Your task to perform on an android device: Go to accessibility settings Image 0: 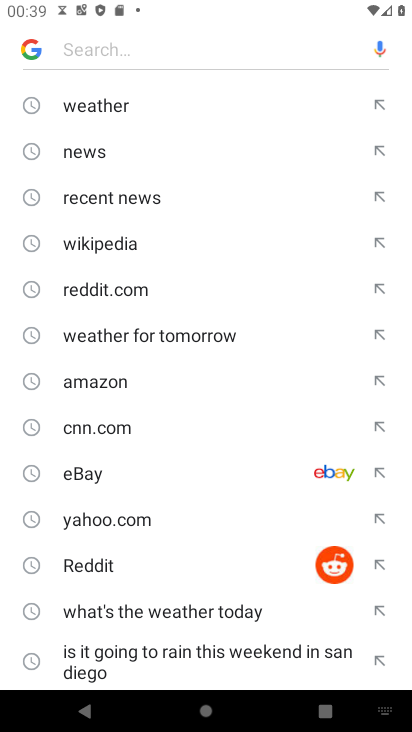
Step 0: press back button
Your task to perform on an android device: Go to accessibility settings Image 1: 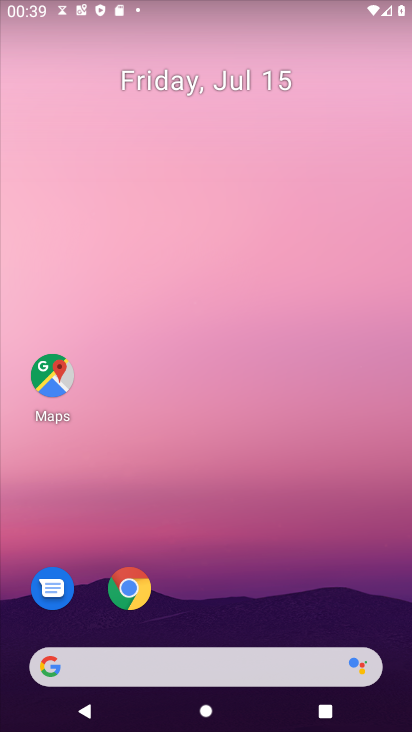
Step 1: drag from (243, 592) to (277, 129)
Your task to perform on an android device: Go to accessibility settings Image 2: 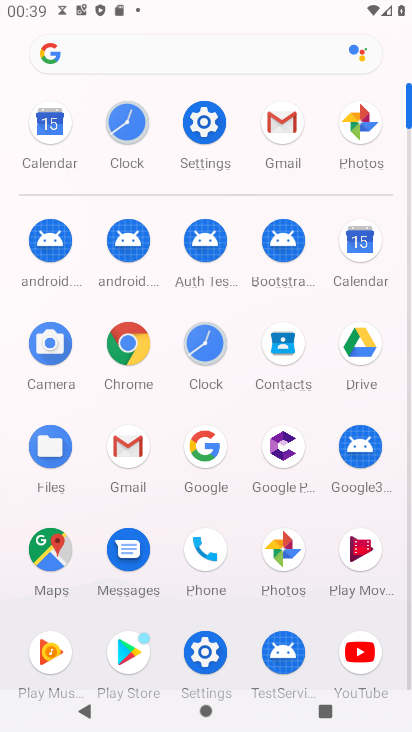
Step 2: click (204, 113)
Your task to perform on an android device: Go to accessibility settings Image 3: 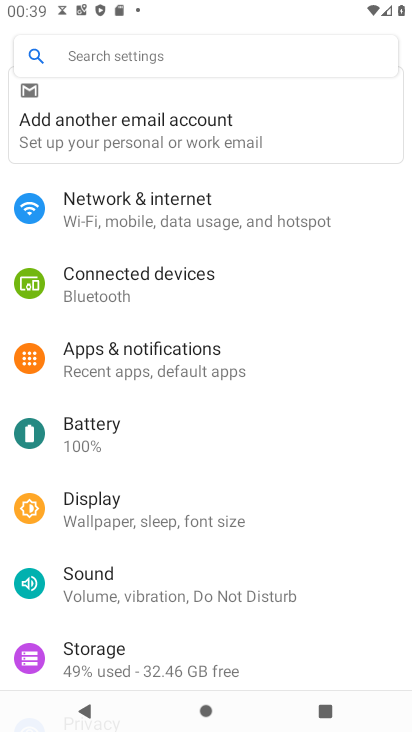
Step 3: drag from (142, 626) to (273, 64)
Your task to perform on an android device: Go to accessibility settings Image 4: 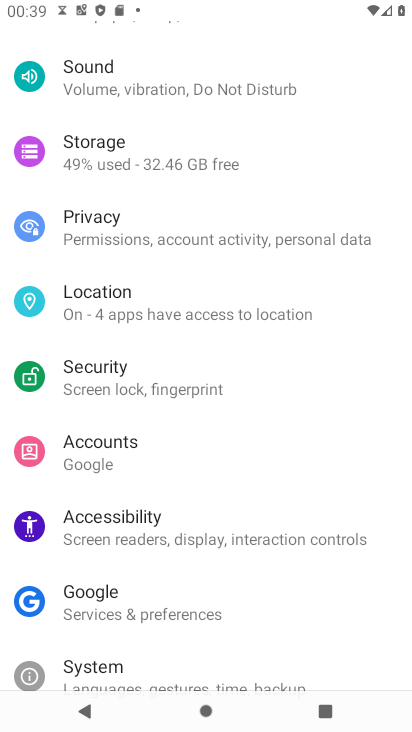
Step 4: click (126, 524)
Your task to perform on an android device: Go to accessibility settings Image 5: 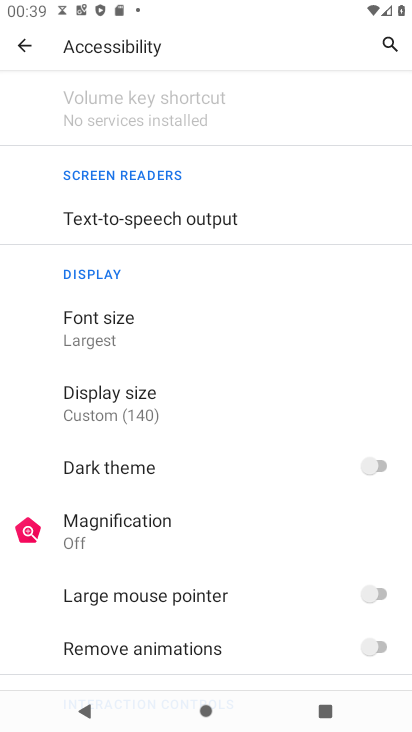
Step 5: task complete